Your task to perform on an android device: open app "Pandora - Music & Podcasts" Image 0: 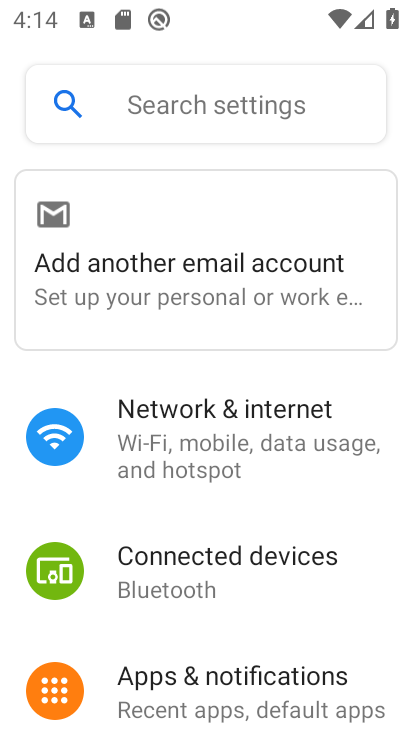
Step 0: press home button
Your task to perform on an android device: open app "Pandora - Music & Podcasts" Image 1: 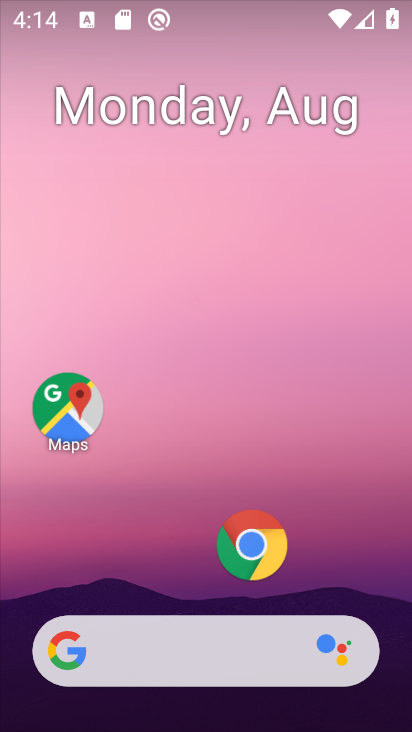
Step 1: drag from (180, 519) to (266, 53)
Your task to perform on an android device: open app "Pandora - Music & Podcasts" Image 2: 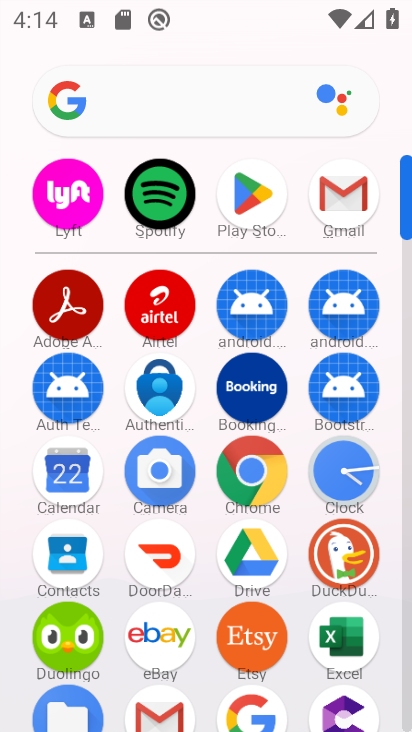
Step 2: click (258, 197)
Your task to perform on an android device: open app "Pandora - Music & Podcasts" Image 3: 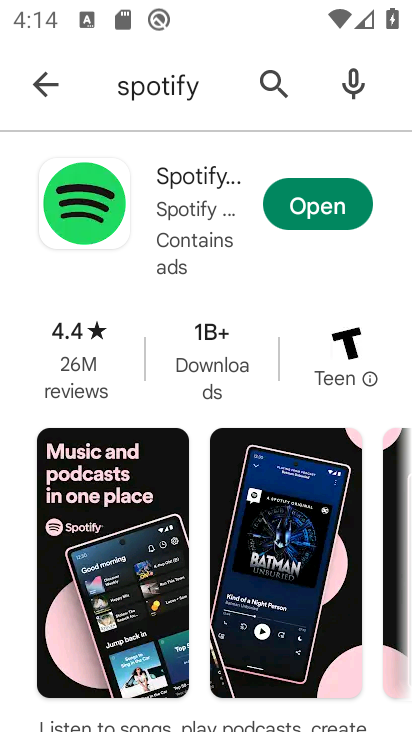
Step 3: click (277, 79)
Your task to perform on an android device: open app "Pandora - Music & Podcasts" Image 4: 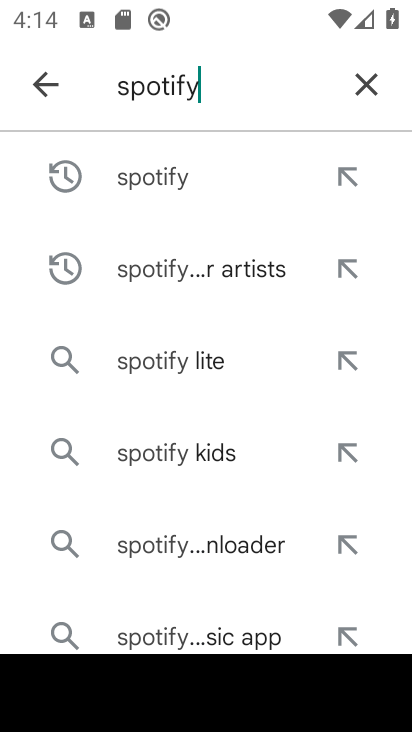
Step 4: click (355, 79)
Your task to perform on an android device: open app "Pandora - Music & Podcasts" Image 5: 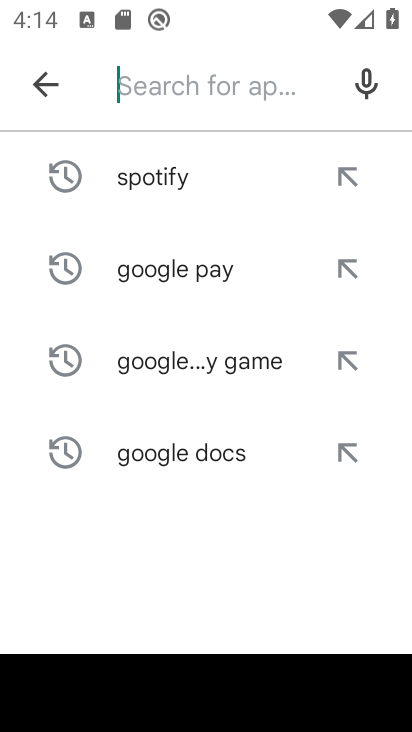
Step 5: click (200, 93)
Your task to perform on an android device: open app "Pandora - Music & Podcasts" Image 6: 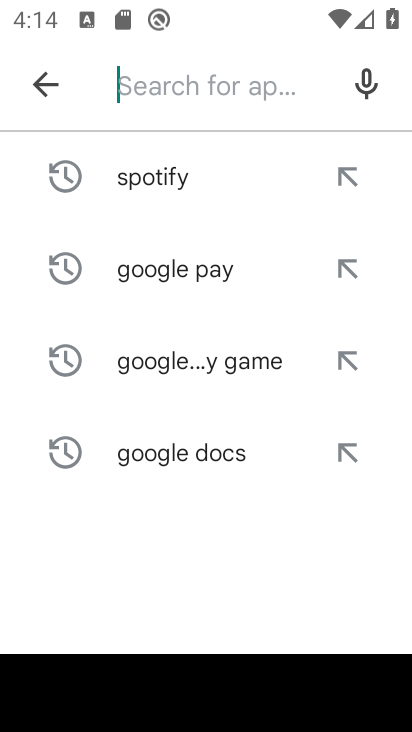
Step 6: click (181, 94)
Your task to perform on an android device: open app "Pandora - Music & Podcasts" Image 7: 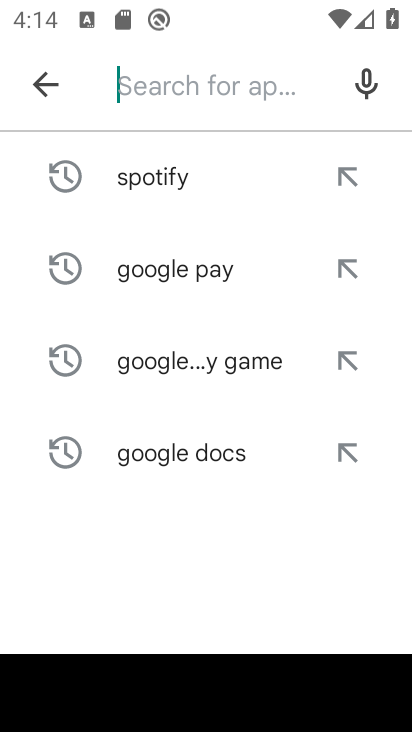
Step 7: type "Pandora"
Your task to perform on an android device: open app "Pandora - Music & Podcasts" Image 8: 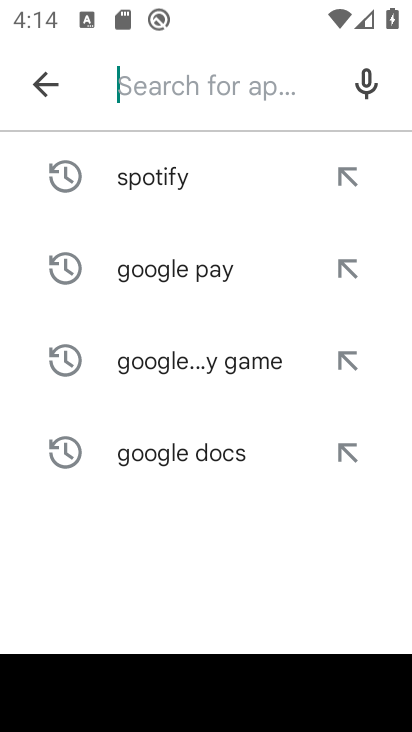
Step 8: click (147, 547)
Your task to perform on an android device: open app "Pandora - Music & Podcasts" Image 9: 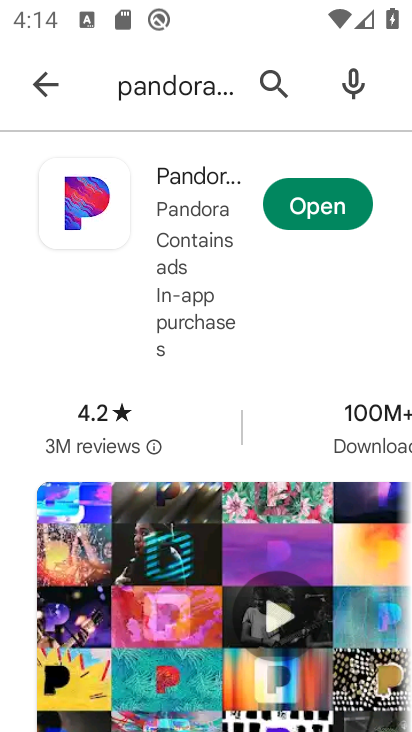
Step 9: click (320, 209)
Your task to perform on an android device: open app "Pandora - Music & Podcasts" Image 10: 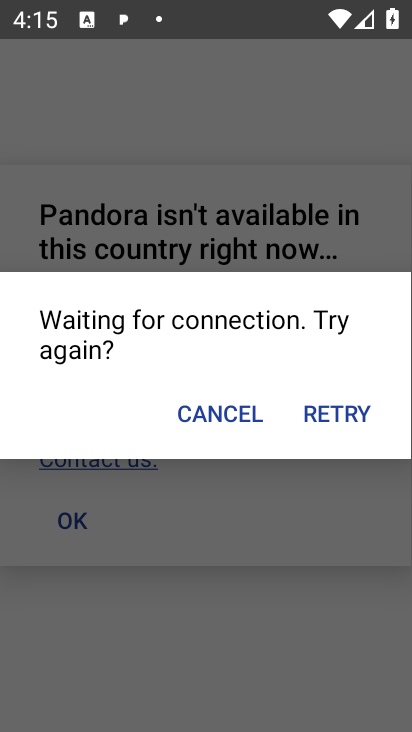
Step 10: click (165, 428)
Your task to perform on an android device: open app "Pandora - Music & Podcasts" Image 11: 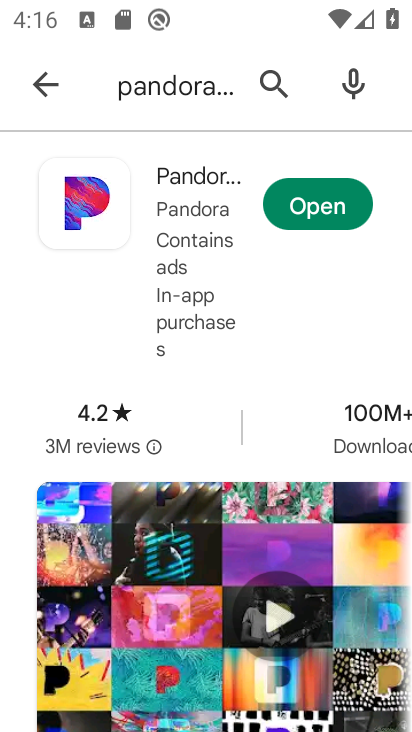
Step 11: click (309, 211)
Your task to perform on an android device: open app "Pandora - Music & Podcasts" Image 12: 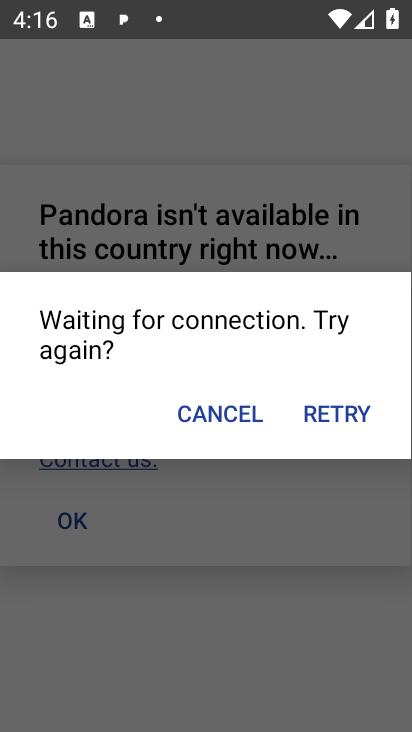
Step 12: task complete